Your task to perform on an android device: turn pop-ups on in chrome Image 0: 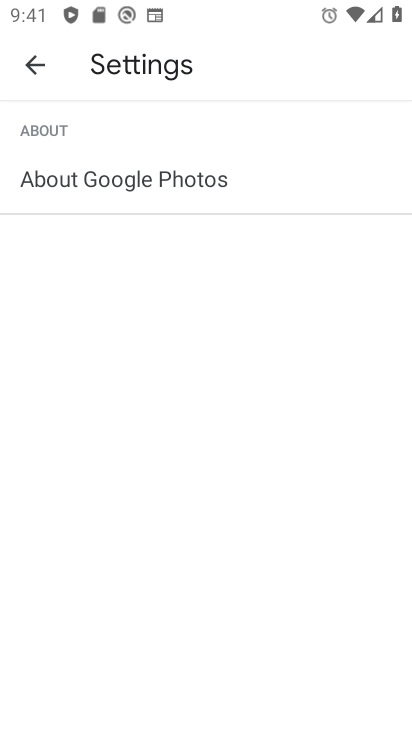
Step 0: press home button
Your task to perform on an android device: turn pop-ups on in chrome Image 1: 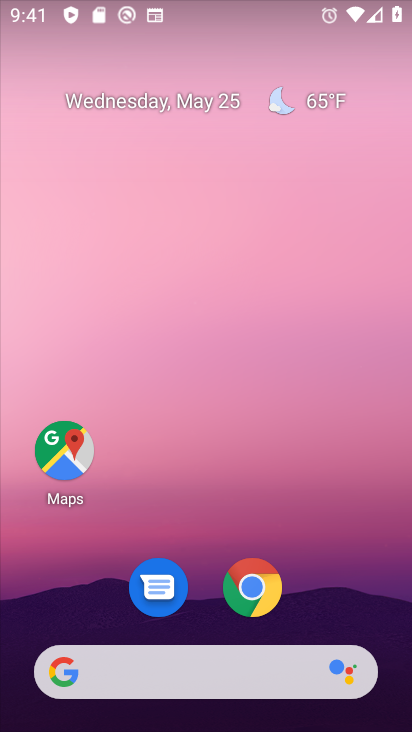
Step 1: click (266, 599)
Your task to perform on an android device: turn pop-ups on in chrome Image 2: 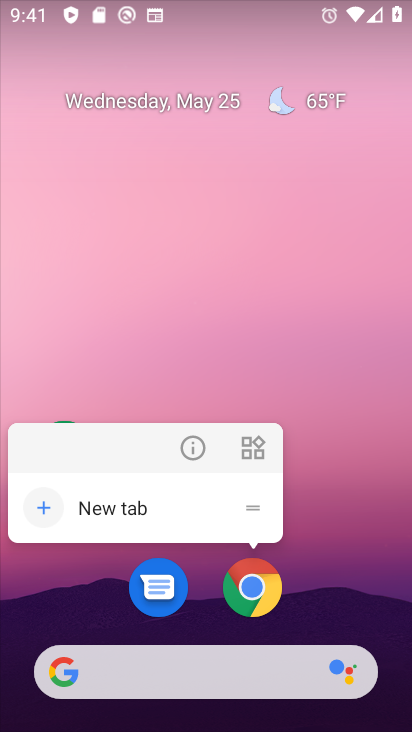
Step 2: click (260, 590)
Your task to perform on an android device: turn pop-ups on in chrome Image 3: 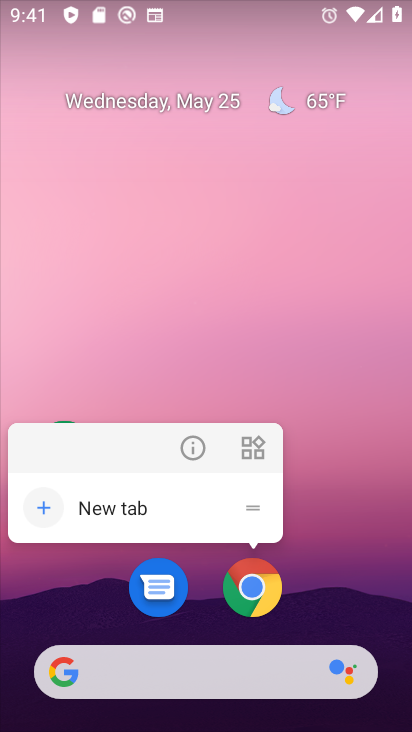
Step 3: click (256, 589)
Your task to perform on an android device: turn pop-ups on in chrome Image 4: 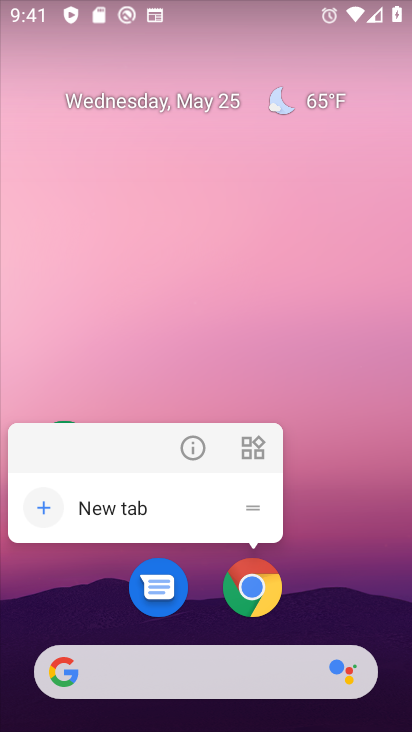
Step 4: click (256, 589)
Your task to perform on an android device: turn pop-ups on in chrome Image 5: 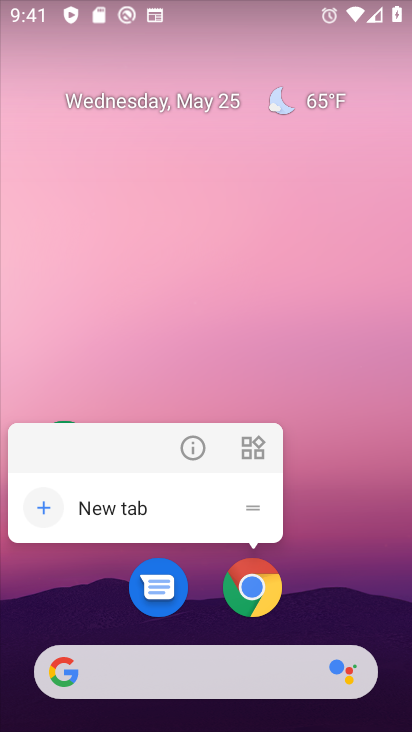
Step 5: click (255, 589)
Your task to perform on an android device: turn pop-ups on in chrome Image 6: 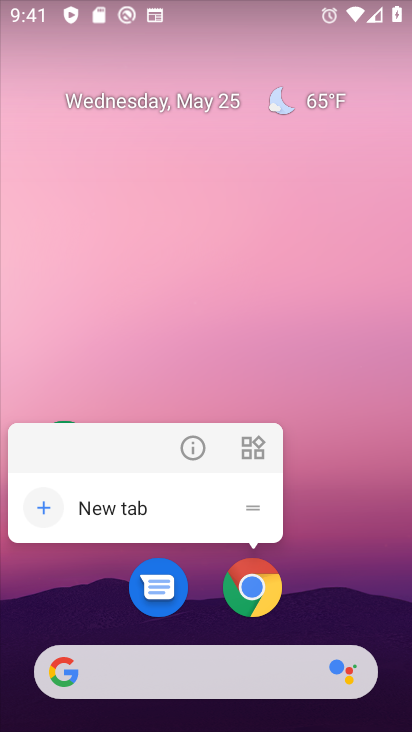
Step 6: click (255, 586)
Your task to perform on an android device: turn pop-ups on in chrome Image 7: 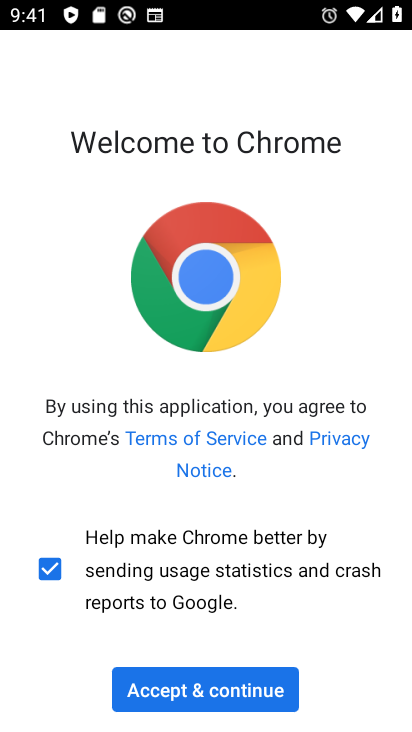
Step 7: click (214, 693)
Your task to perform on an android device: turn pop-ups on in chrome Image 8: 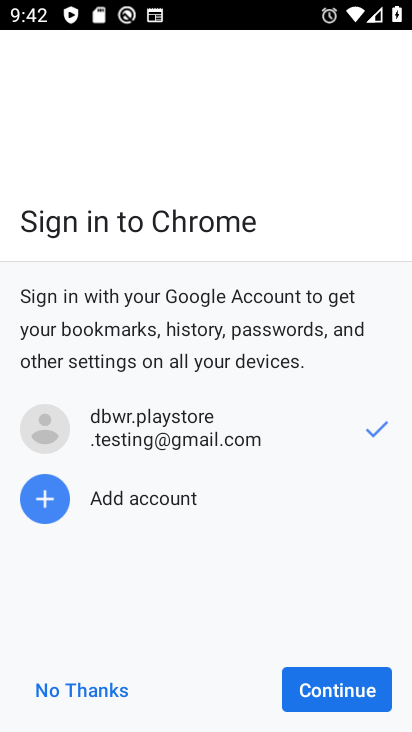
Step 8: click (315, 696)
Your task to perform on an android device: turn pop-ups on in chrome Image 9: 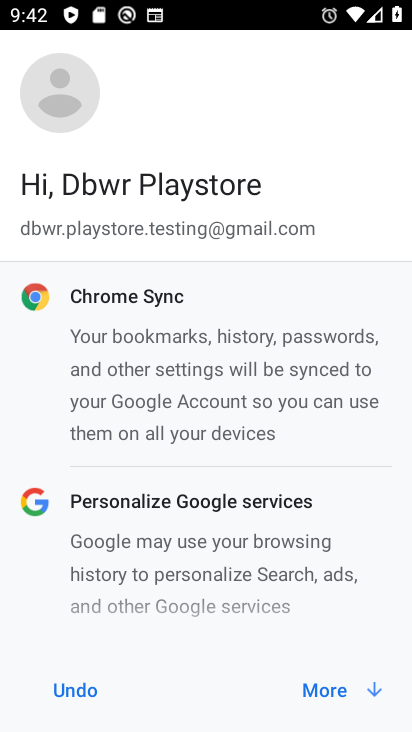
Step 9: click (356, 682)
Your task to perform on an android device: turn pop-ups on in chrome Image 10: 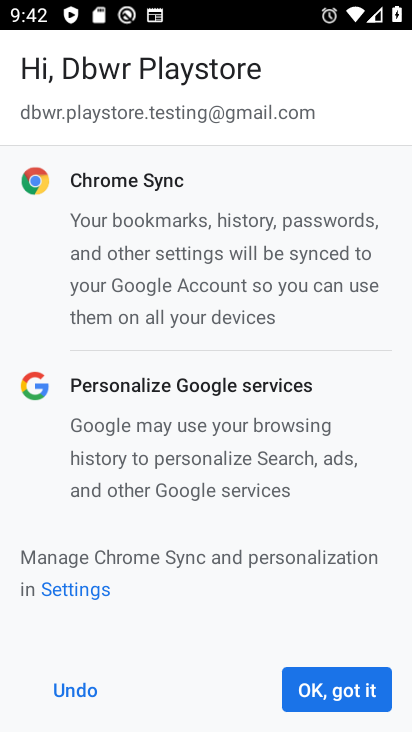
Step 10: click (357, 688)
Your task to perform on an android device: turn pop-ups on in chrome Image 11: 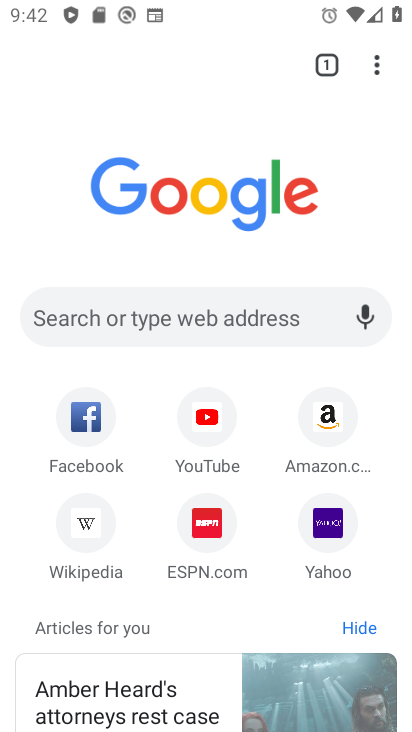
Step 11: drag from (378, 56) to (223, 541)
Your task to perform on an android device: turn pop-ups on in chrome Image 12: 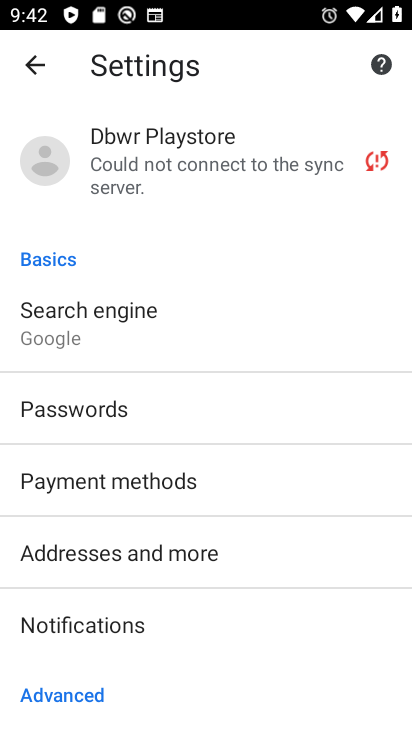
Step 12: drag from (187, 675) to (267, 307)
Your task to perform on an android device: turn pop-ups on in chrome Image 13: 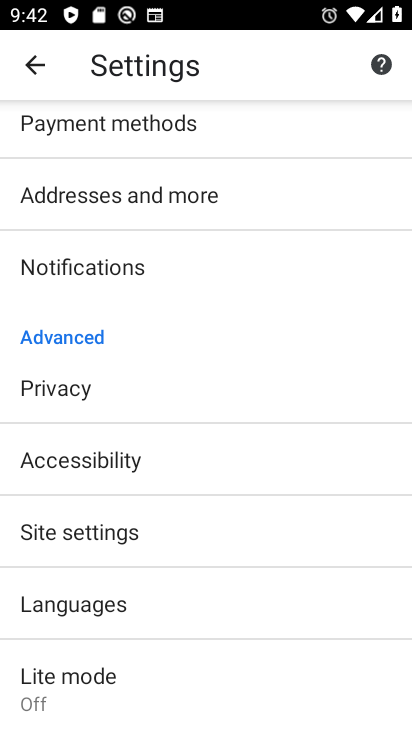
Step 13: drag from (178, 676) to (229, 422)
Your task to perform on an android device: turn pop-ups on in chrome Image 14: 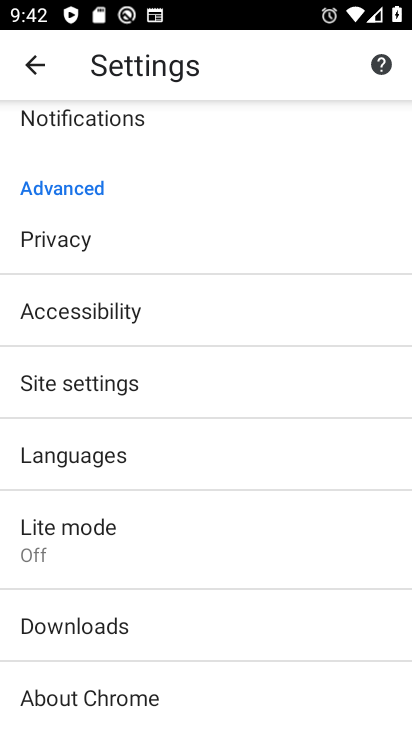
Step 14: click (157, 367)
Your task to perform on an android device: turn pop-ups on in chrome Image 15: 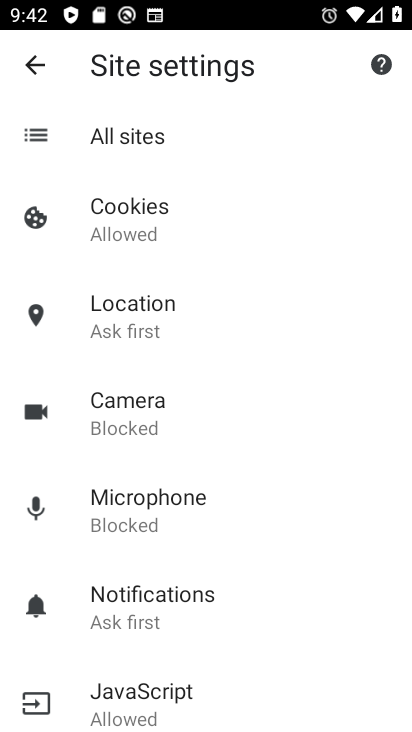
Step 15: drag from (175, 655) to (258, 309)
Your task to perform on an android device: turn pop-ups on in chrome Image 16: 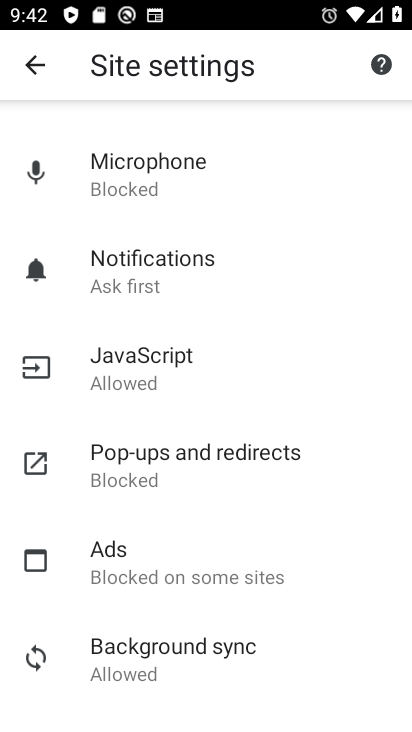
Step 16: click (174, 455)
Your task to perform on an android device: turn pop-ups on in chrome Image 17: 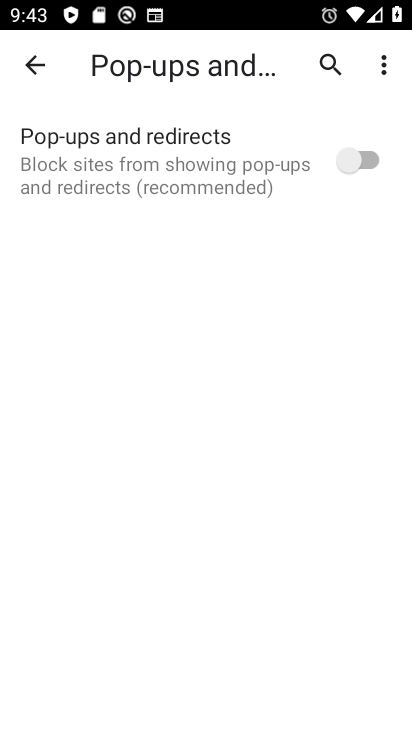
Step 17: click (389, 151)
Your task to perform on an android device: turn pop-ups on in chrome Image 18: 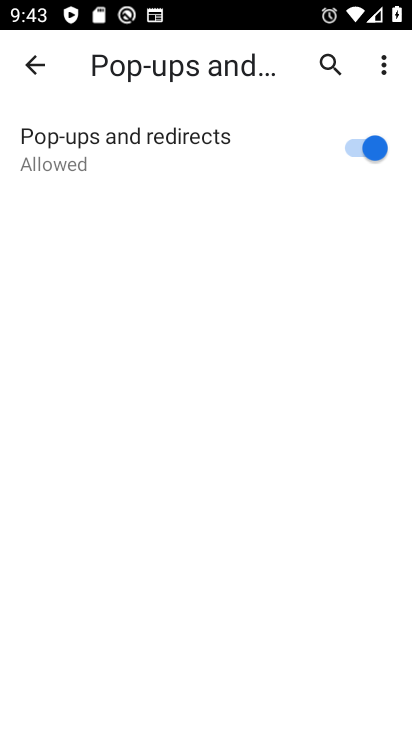
Step 18: task complete